Your task to perform on an android device: Show the shopping cart on walmart. Add "razer nari" to the cart on walmart Image 0: 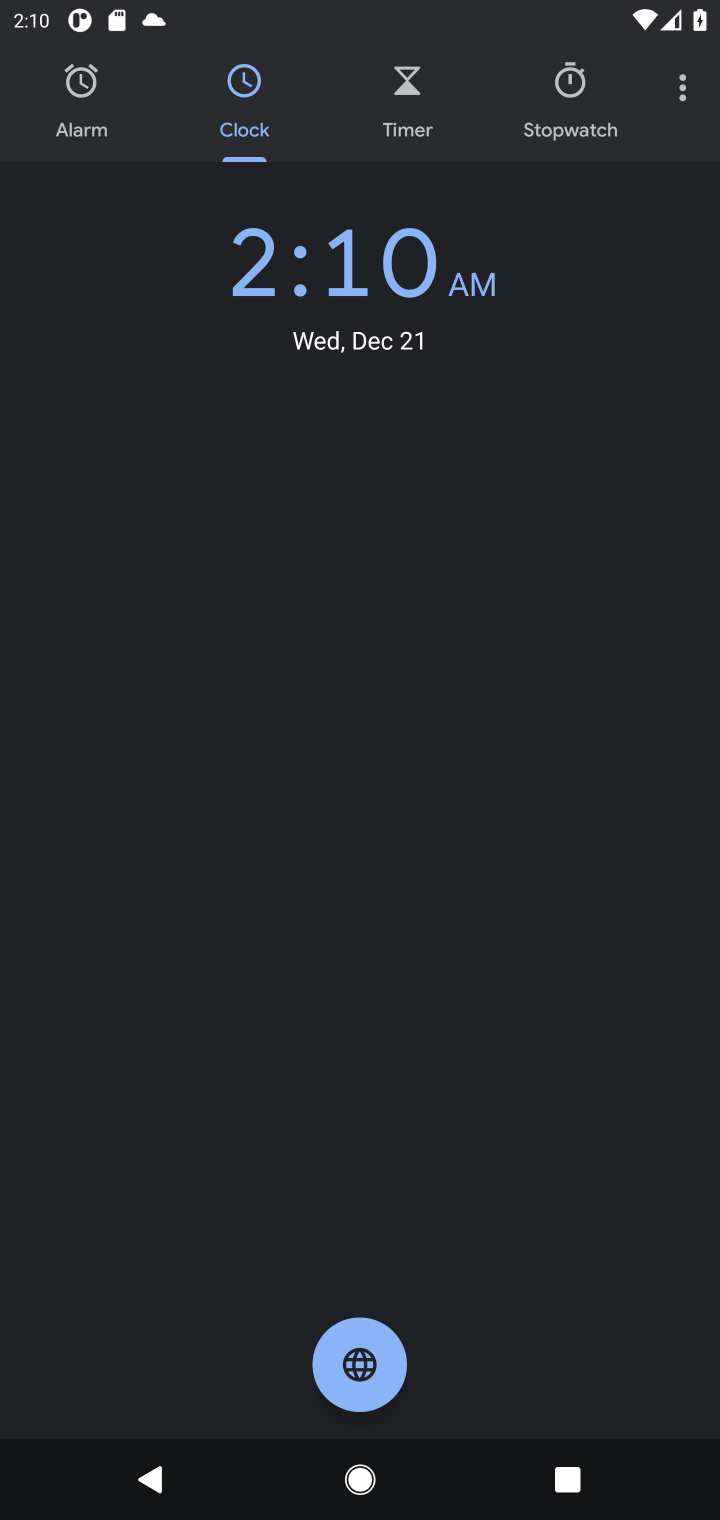
Step 0: press home button
Your task to perform on an android device: Show the shopping cart on walmart. Add "razer nari" to the cart on walmart Image 1: 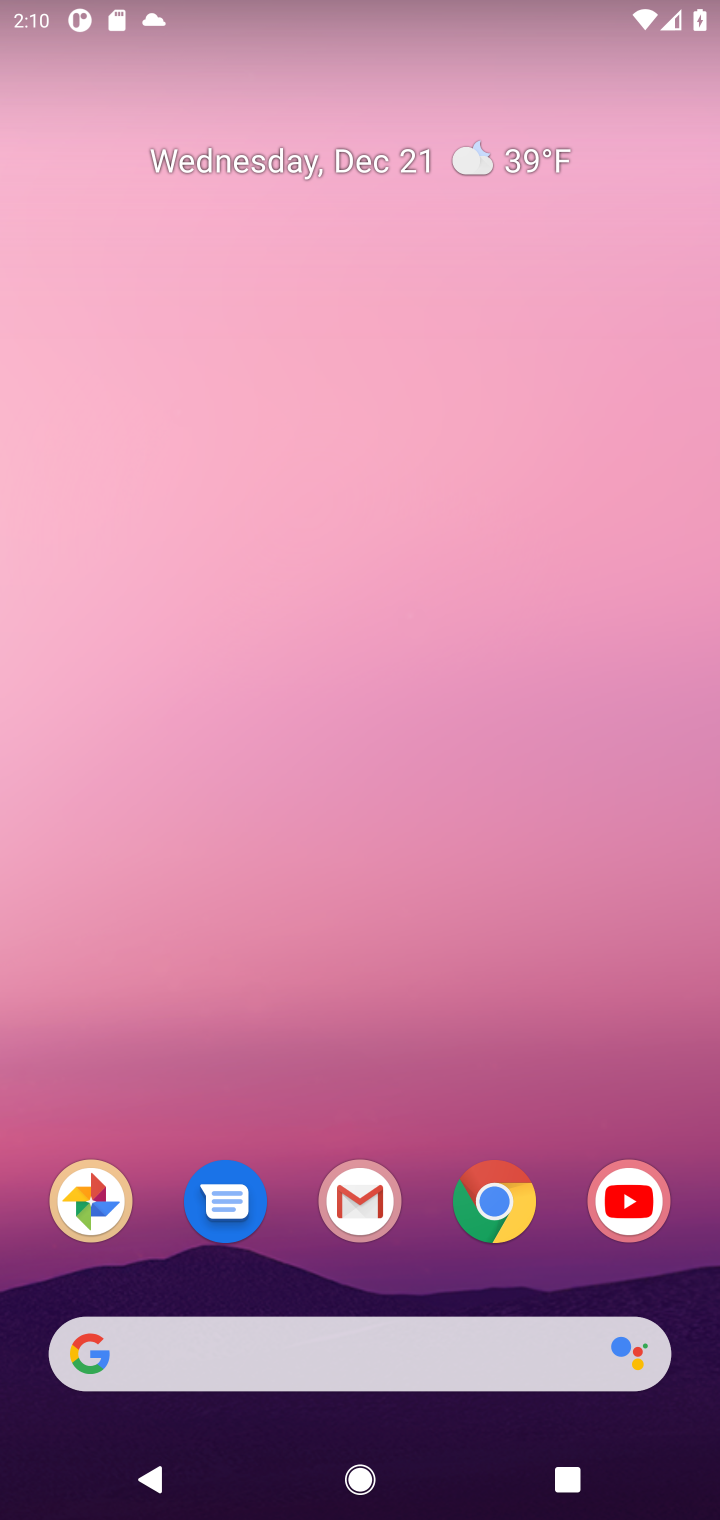
Step 1: click (501, 1212)
Your task to perform on an android device: Show the shopping cart on walmart. Add "razer nari" to the cart on walmart Image 2: 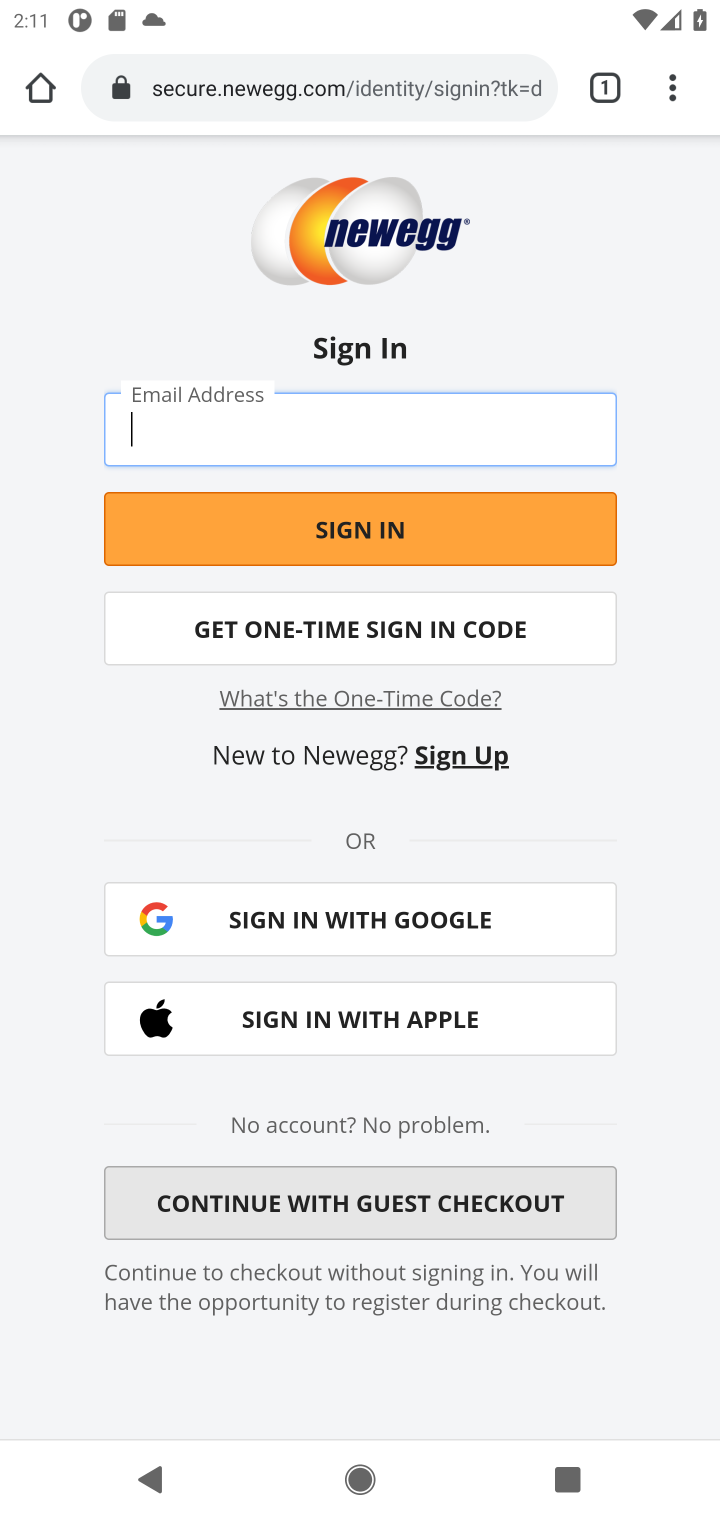
Step 2: click (261, 87)
Your task to perform on an android device: Show the shopping cart on walmart. Add "razer nari" to the cart on walmart Image 3: 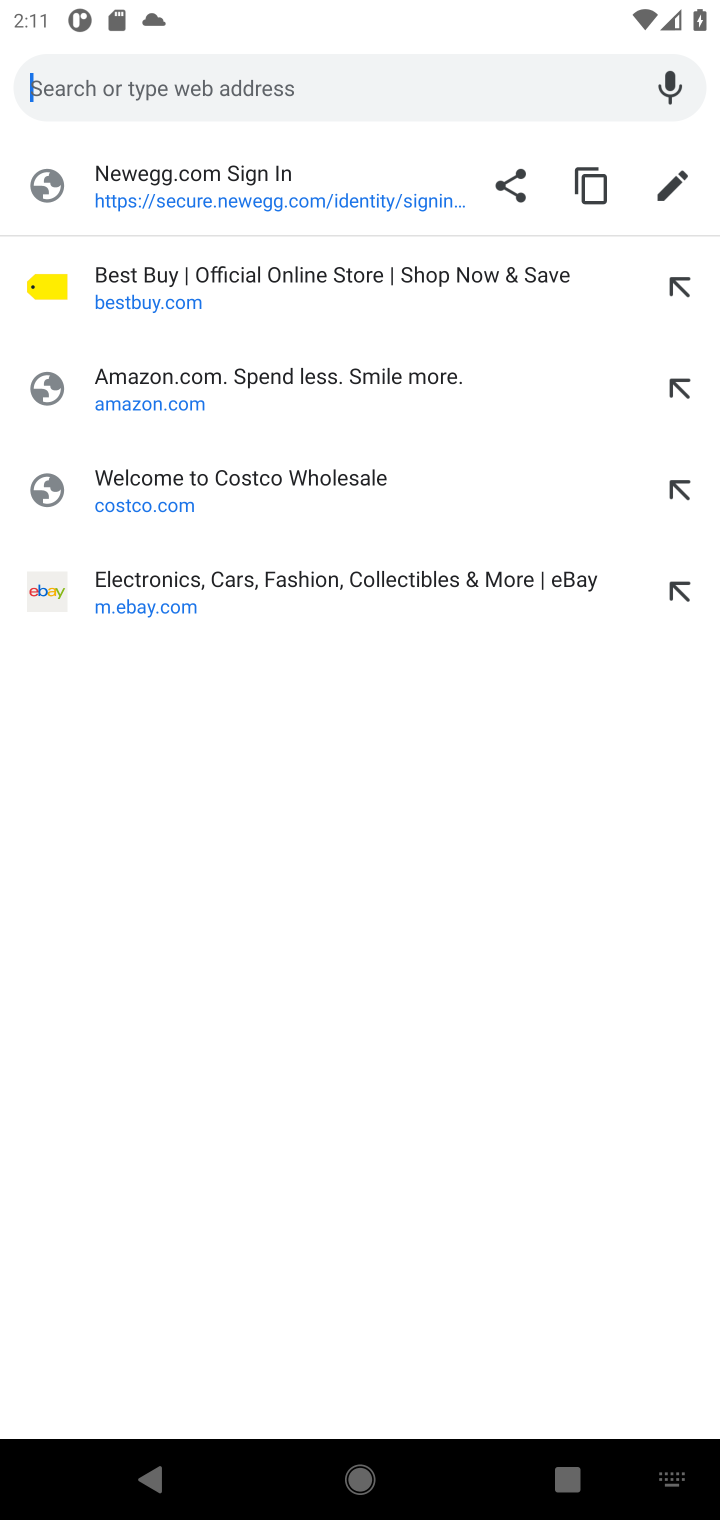
Step 3: type "walmart.com"
Your task to perform on an android device: Show the shopping cart on walmart. Add "razer nari" to the cart on walmart Image 4: 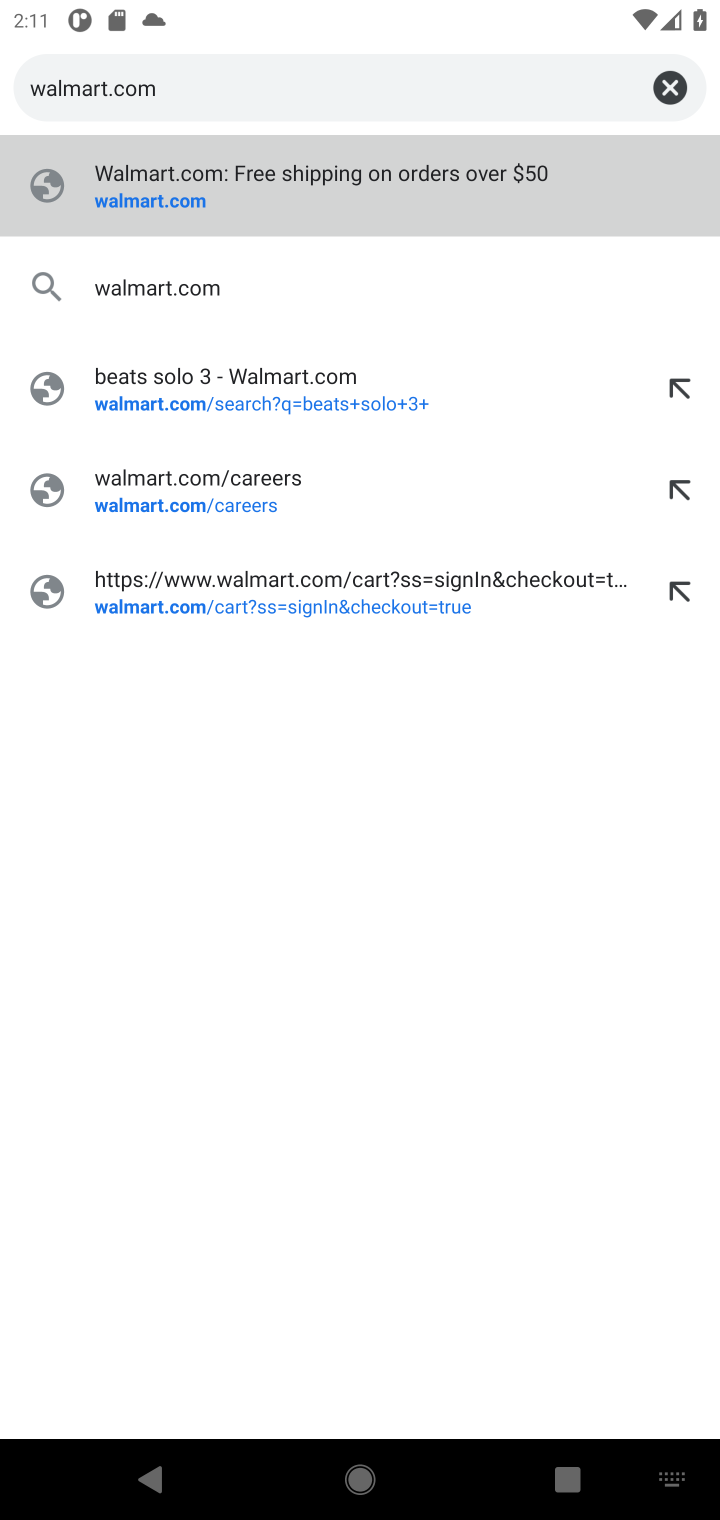
Step 4: click (150, 198)
Your task to perform on an android device: Show the shopping cart on walmart. Add "razer nari" to the cart on walmart Image 5: 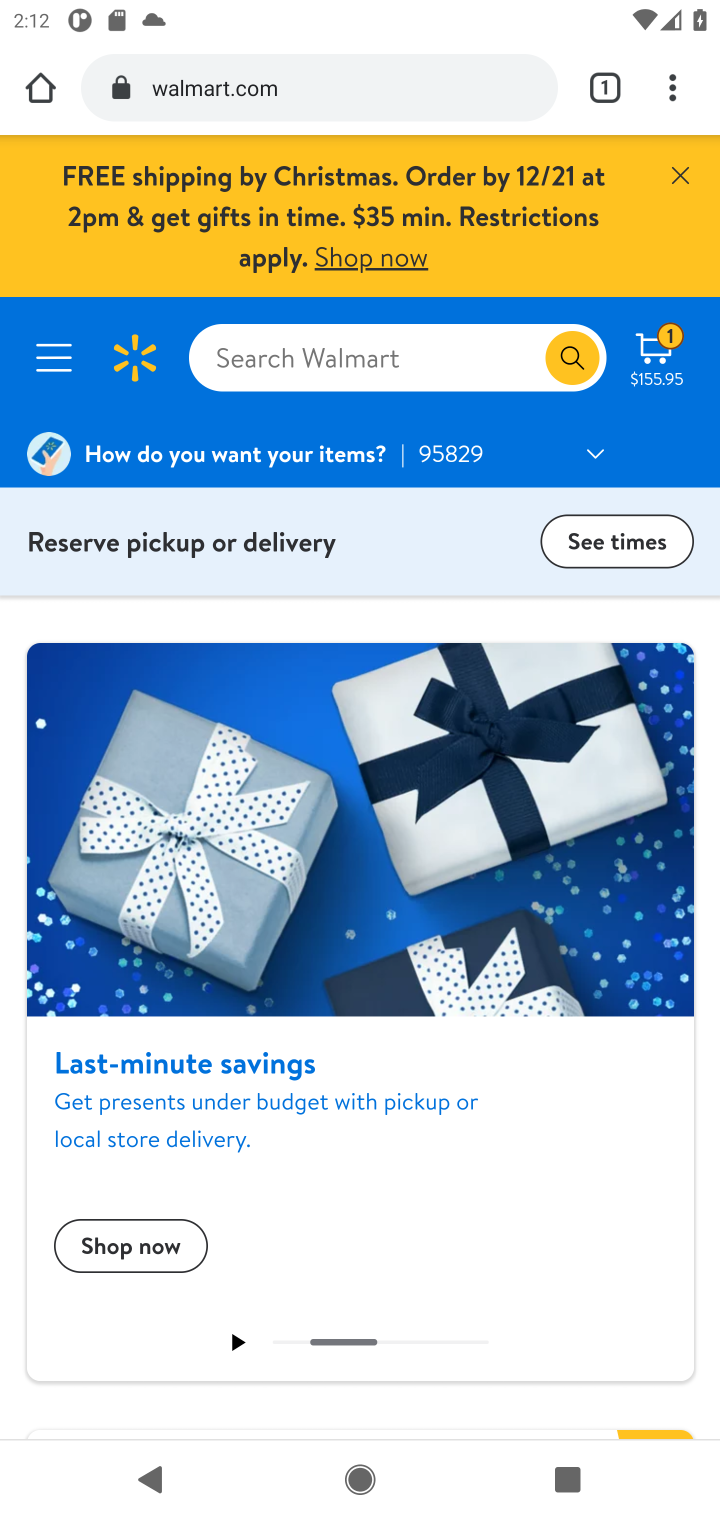
Step 5: click (661, 364)
Your task to perform on an android device: Show the shopping cart on walmart. Add "razer nari" to the cart on walmart Image 6: 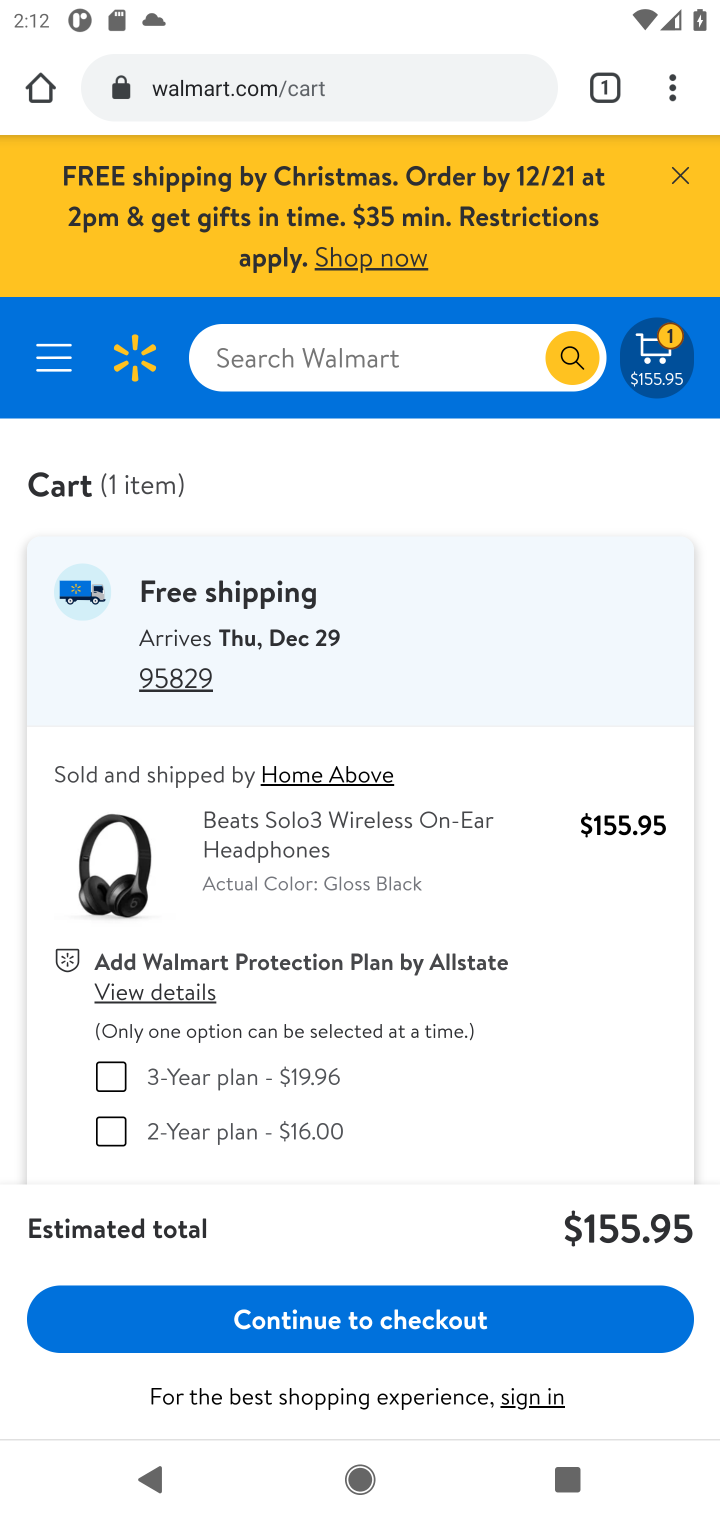
Step 6: click (279, 378)
Your task to perform on an android device: Show the shopping cart on walmart. Add "razer nari" to the cart on walmart Image 7: 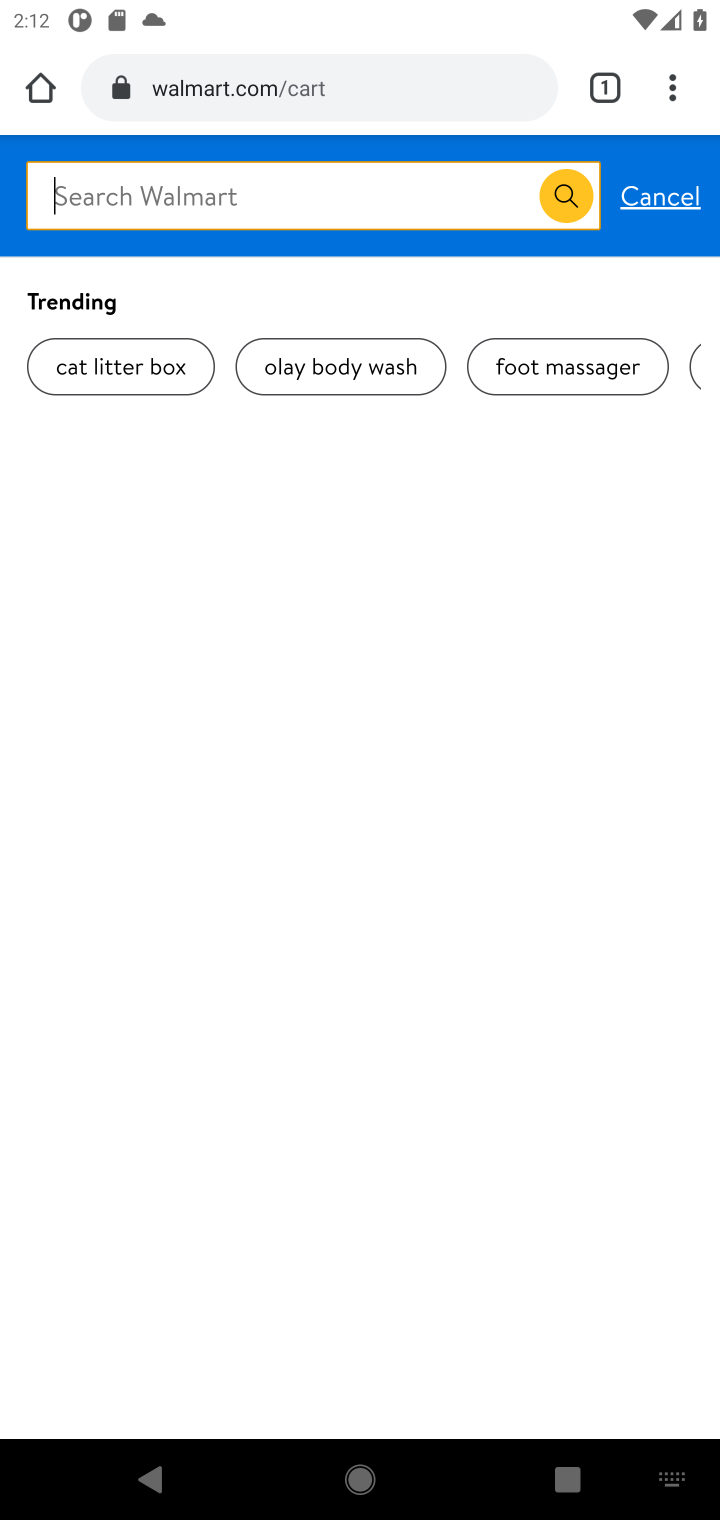
Step 7: type "razer nari"
Your task to perform on an android device: Show the shopping cart on walmart. Add "razer nari" to the cart on walmart Image 8: 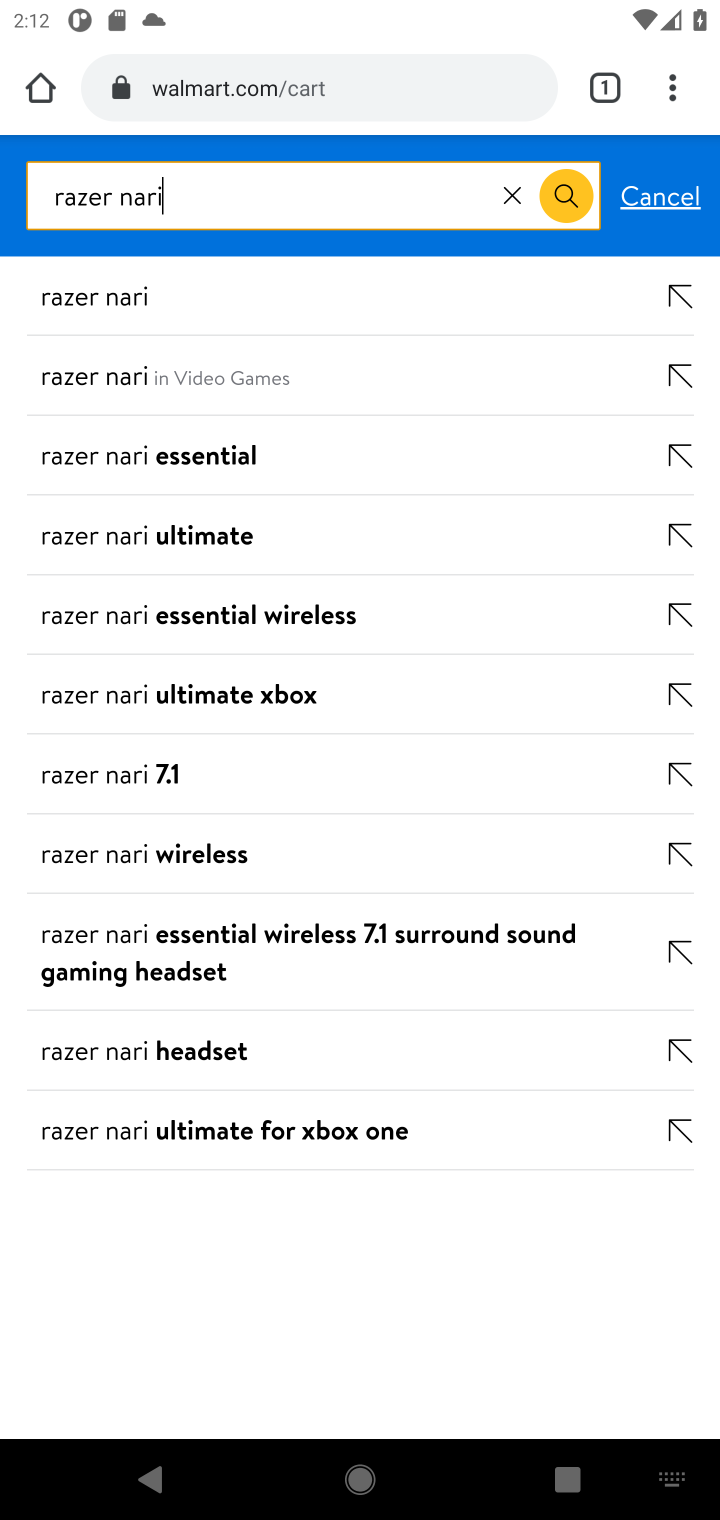
Step 8: click (127, 296)
Your task to perform on an android device: Show the shopping cart on walmart. Add "razer nari" to the cart on walmart Image 9: 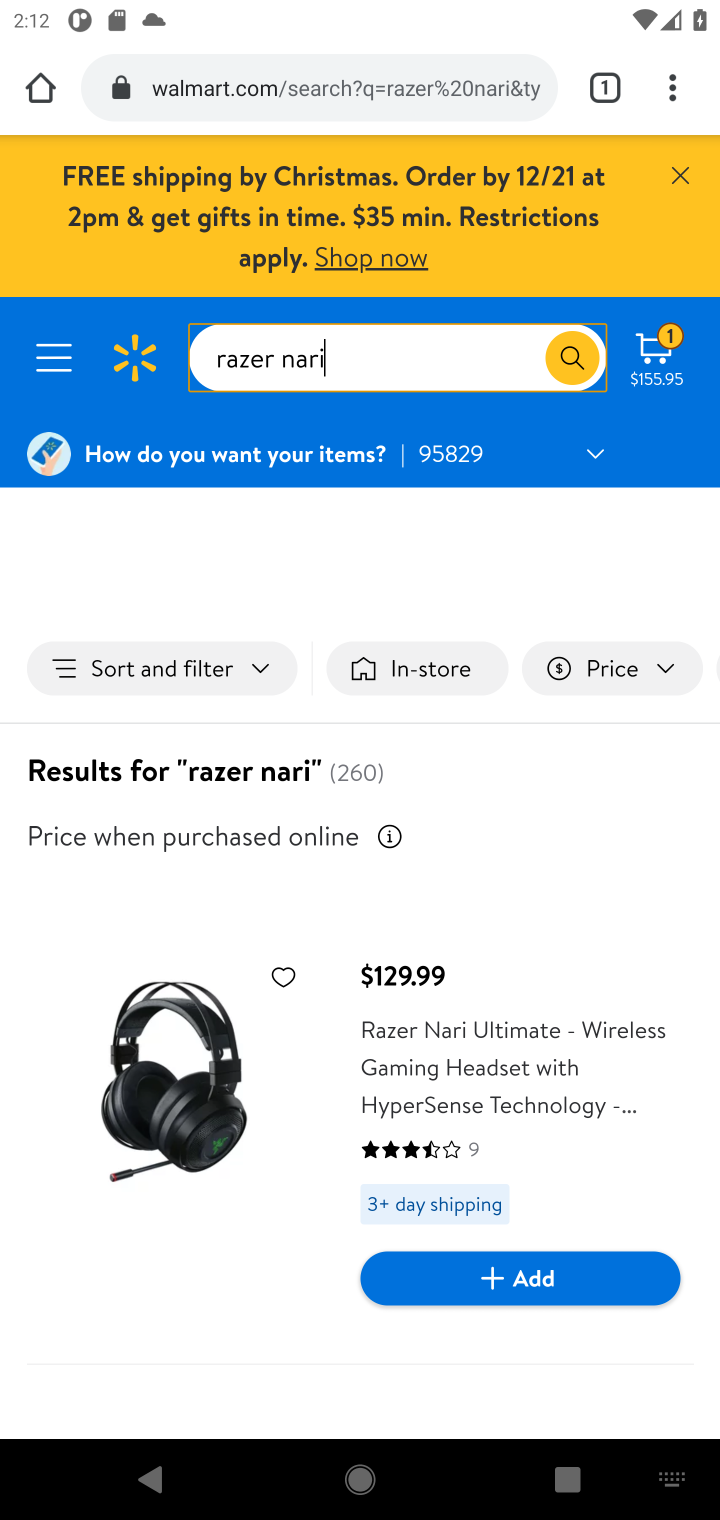
Step 9: click (466, 1273)
Your task to perform on an android device: Show the shopping cart on walmart. Add "razer nari" to the cart on walmart Image 10: 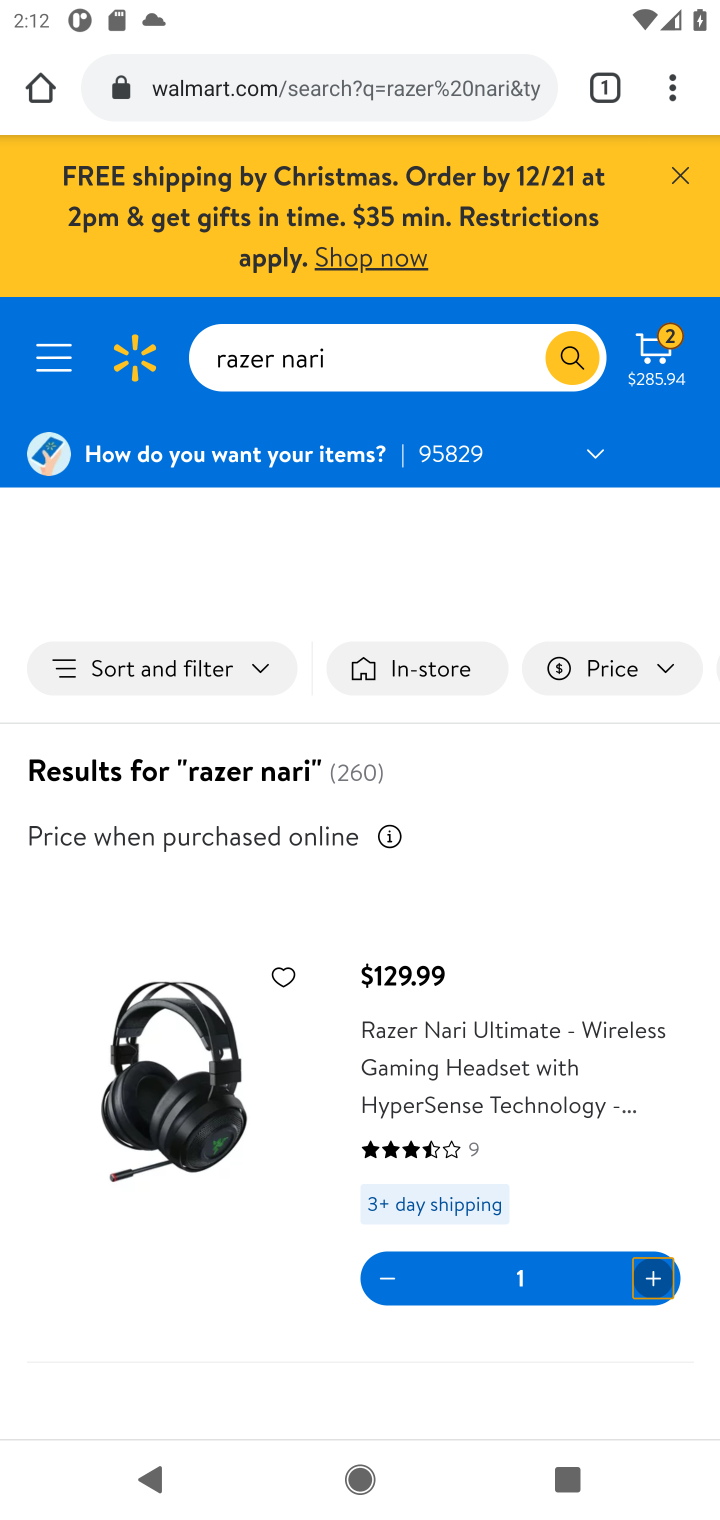
Step 10: task complete